Your task to perform on an android device: open app "Instagram" Image 0: 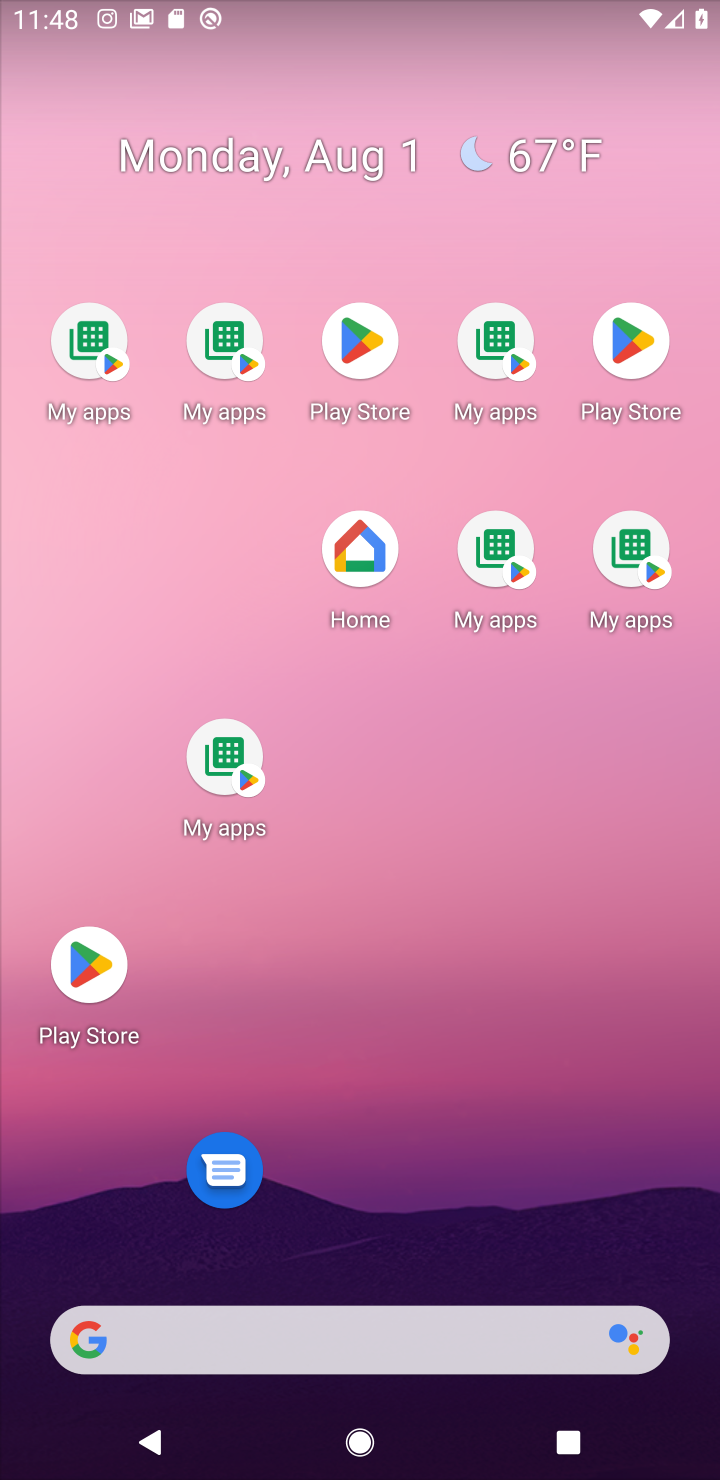
Step 0: drag from (448, 1036) to (329, 129)
Your task to perform on an android device: open app "Instagram" Image 1: 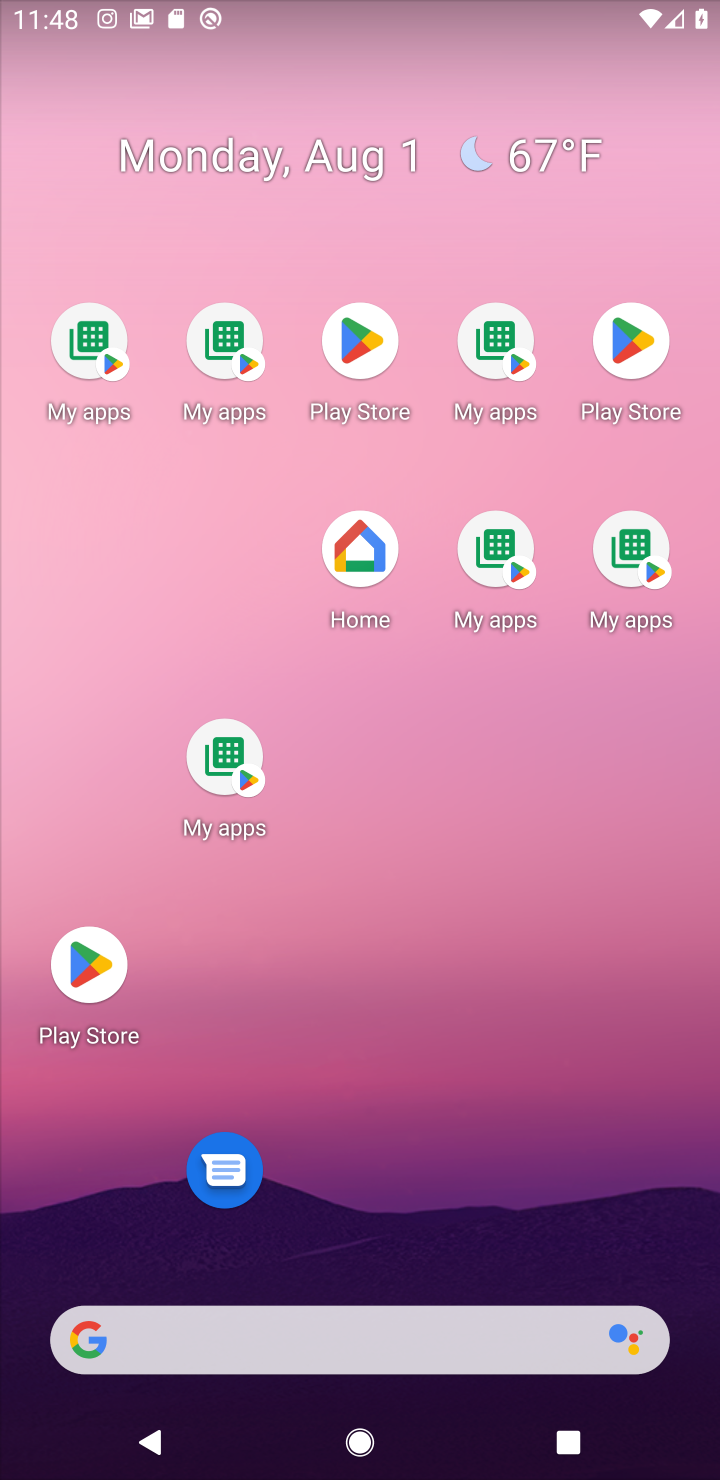
Step 1: drag from (388, 149) to (375, 67)
Your task to perform on an android device: open app "Instagram" Image 2: 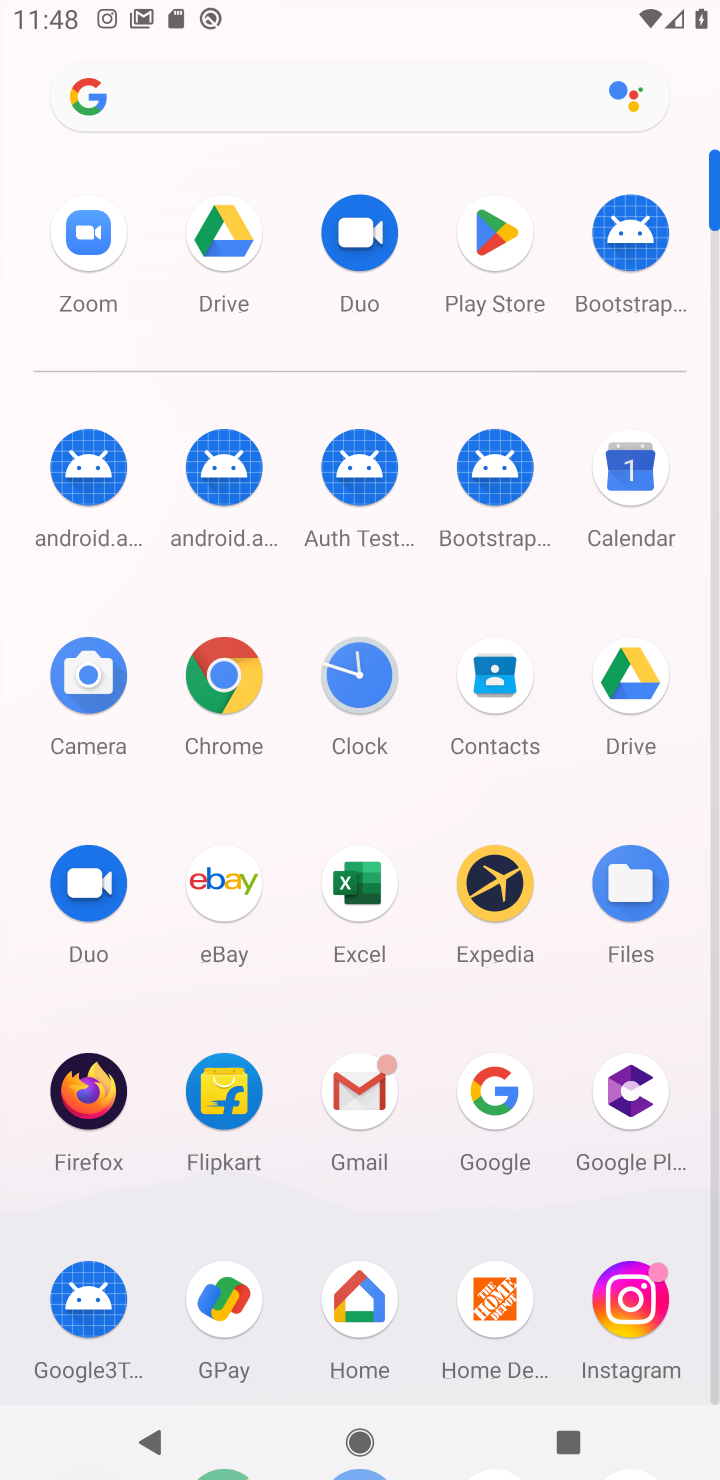
Step 2: click (501, 215)
Your task to perform on an android device: open app "Instagram" Image 3: 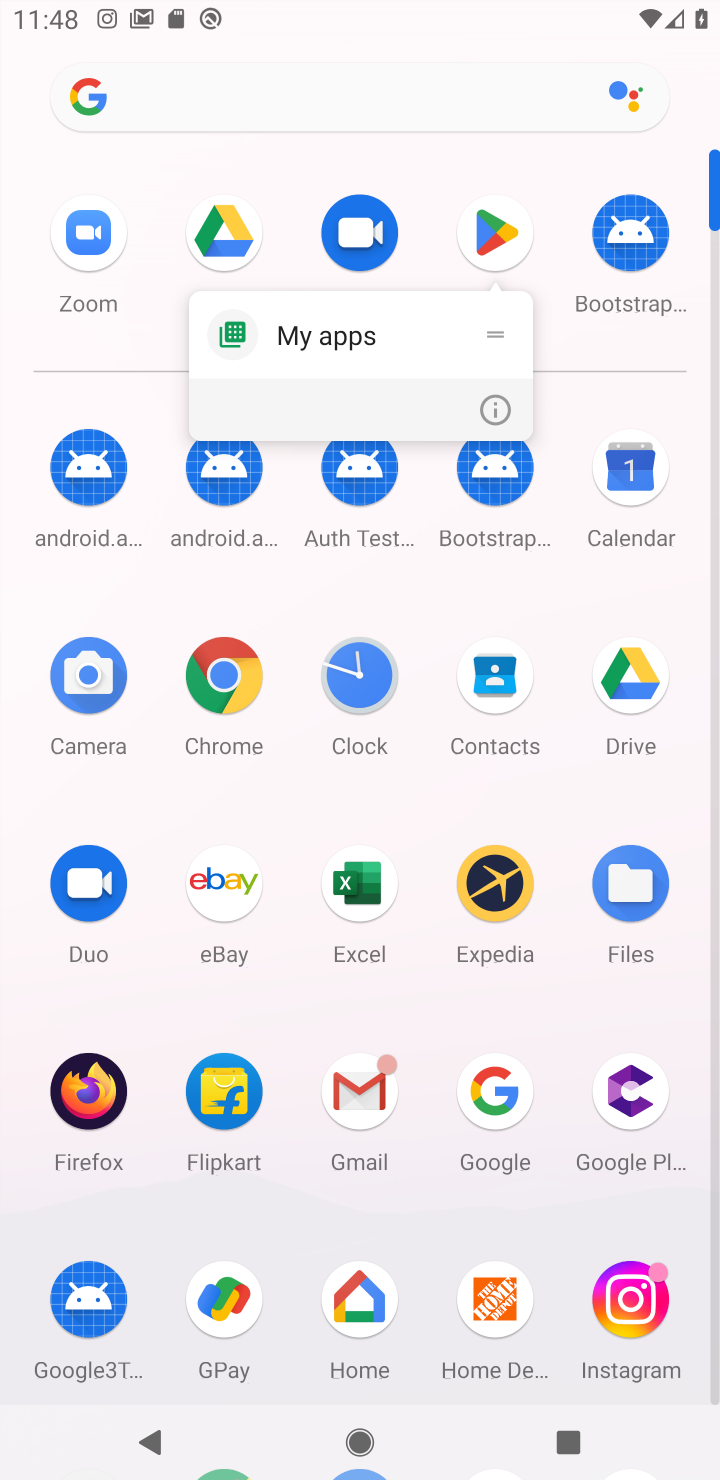
Step 3: click (524, 234)
Your task to perform on an android device: open app "Instagram" Image 4: 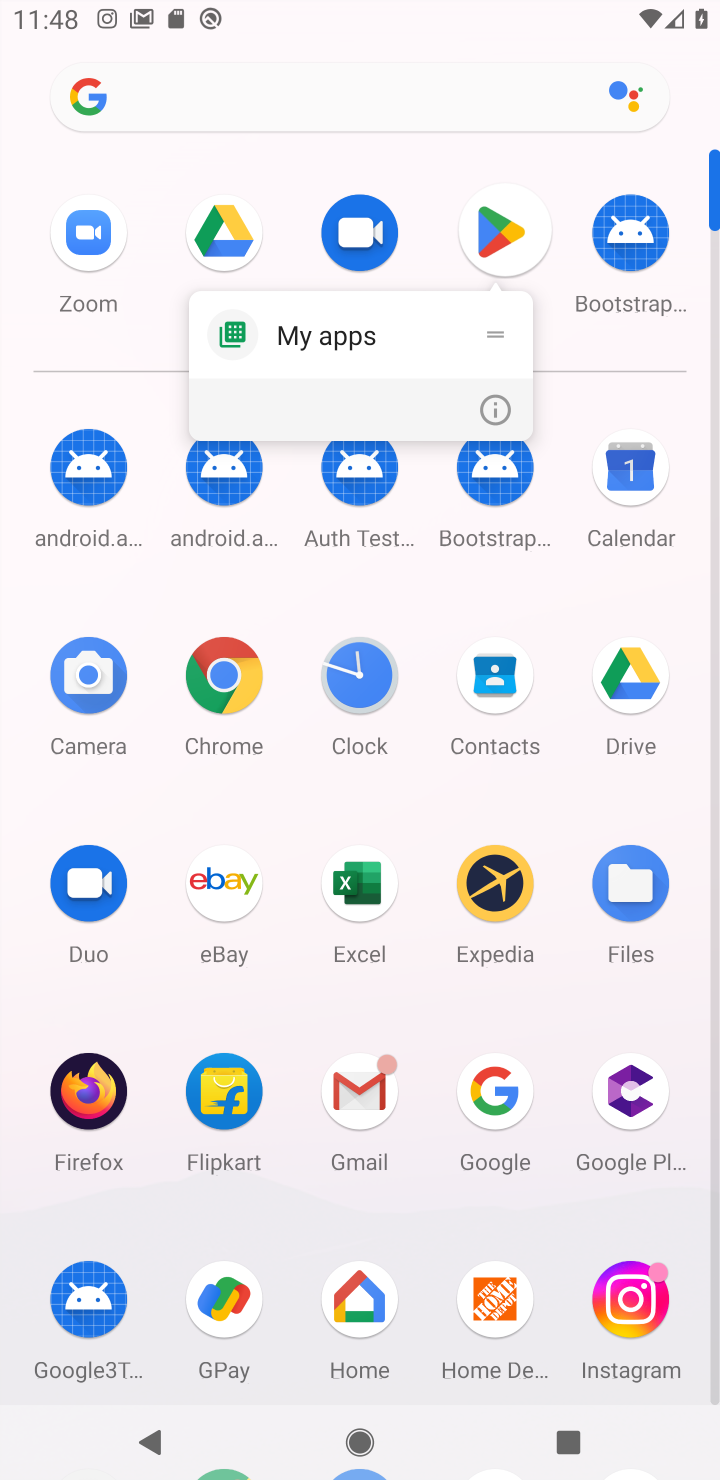
Step 4: click (518, 233)
Your task to perform on an android device: open app "Instagram" Image 5: 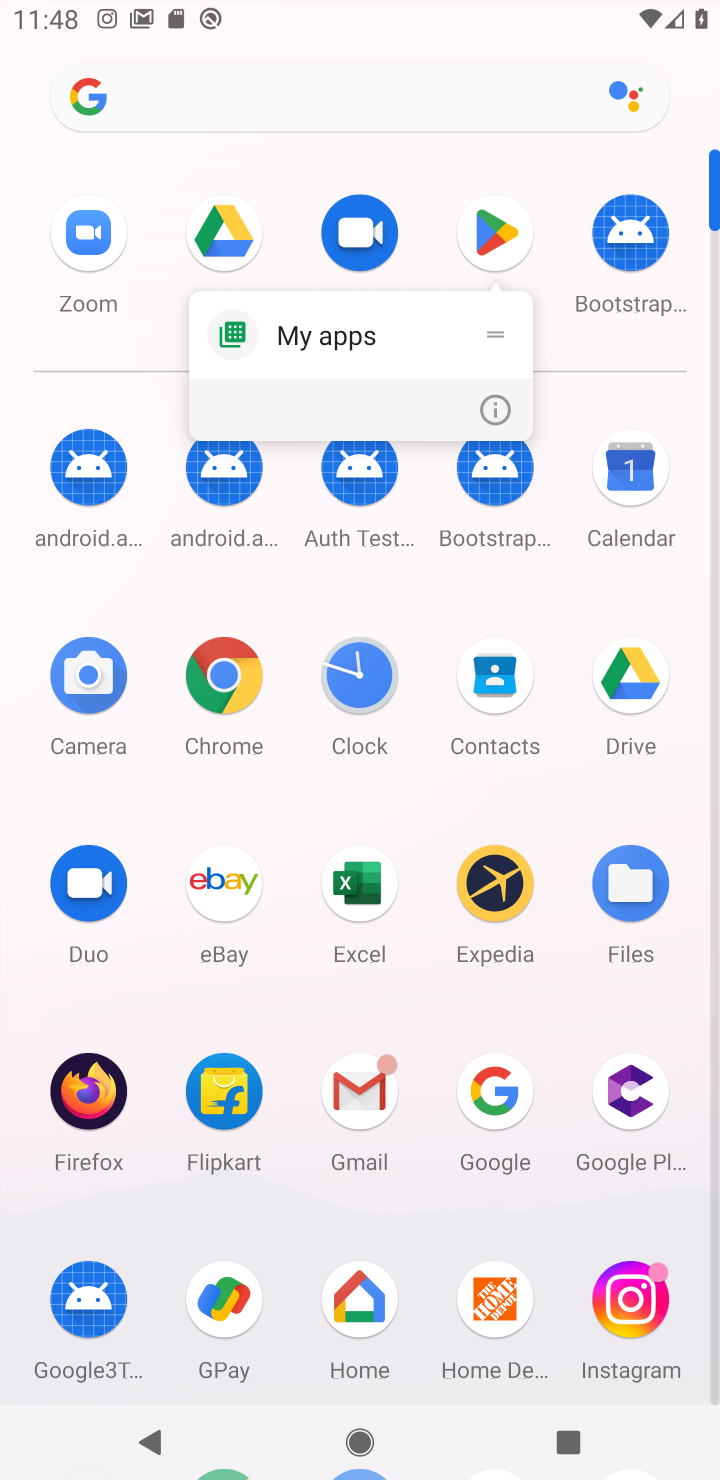
Step 5: click (527, 226)
Your task to perform on an android device: open app "Instagram" Image 6: 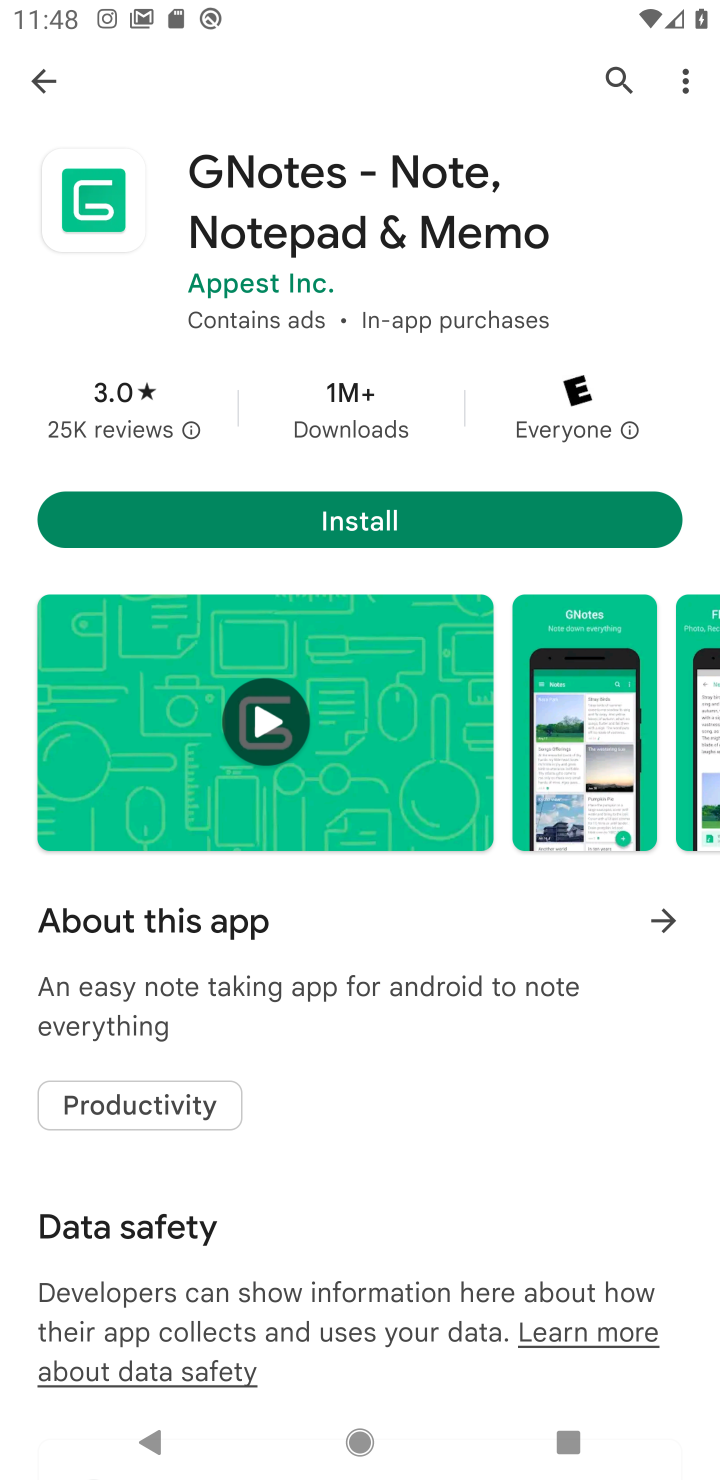
Step 6: click (56, 100)
Your task to perform on an android device: open app "Instagram" Image 7: 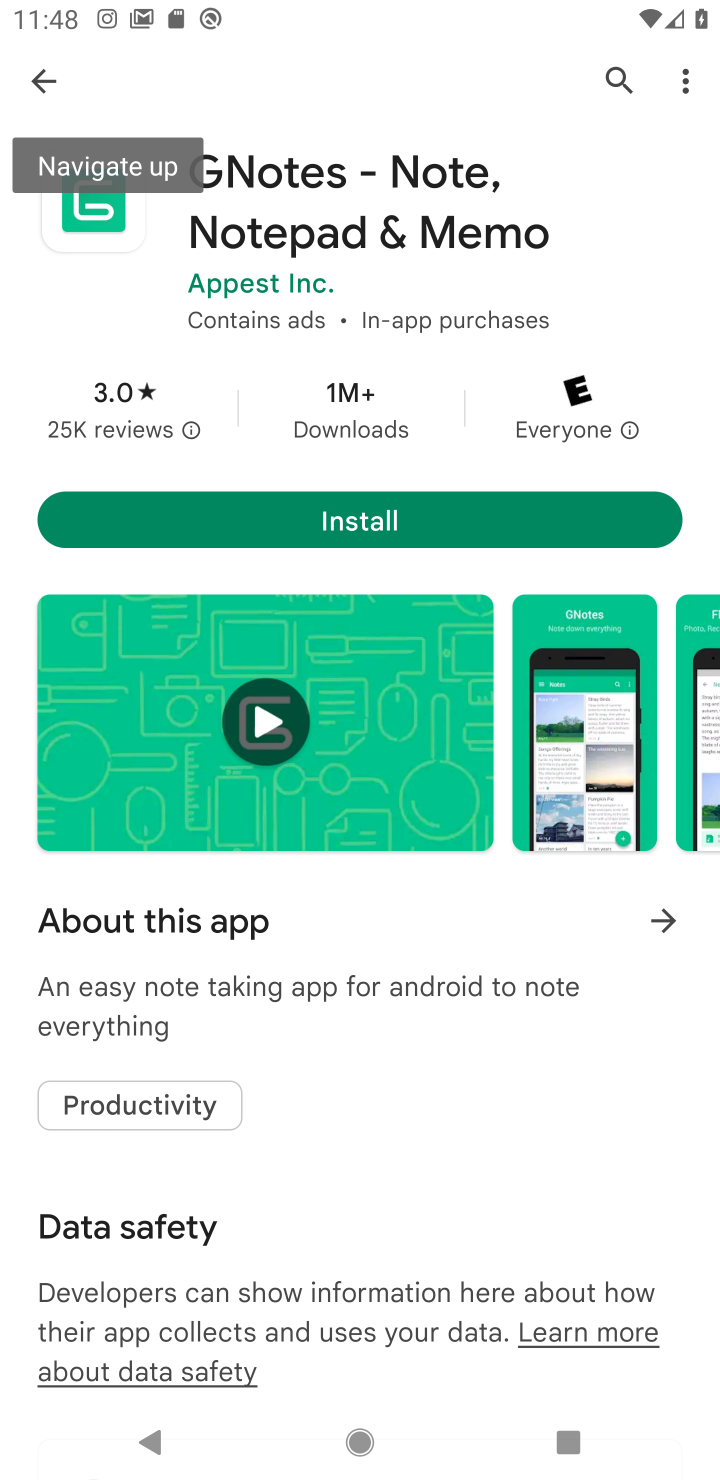
Step 7: click (38, 74)
Your task to perform on an android device: open app "Instagram" Image 8: 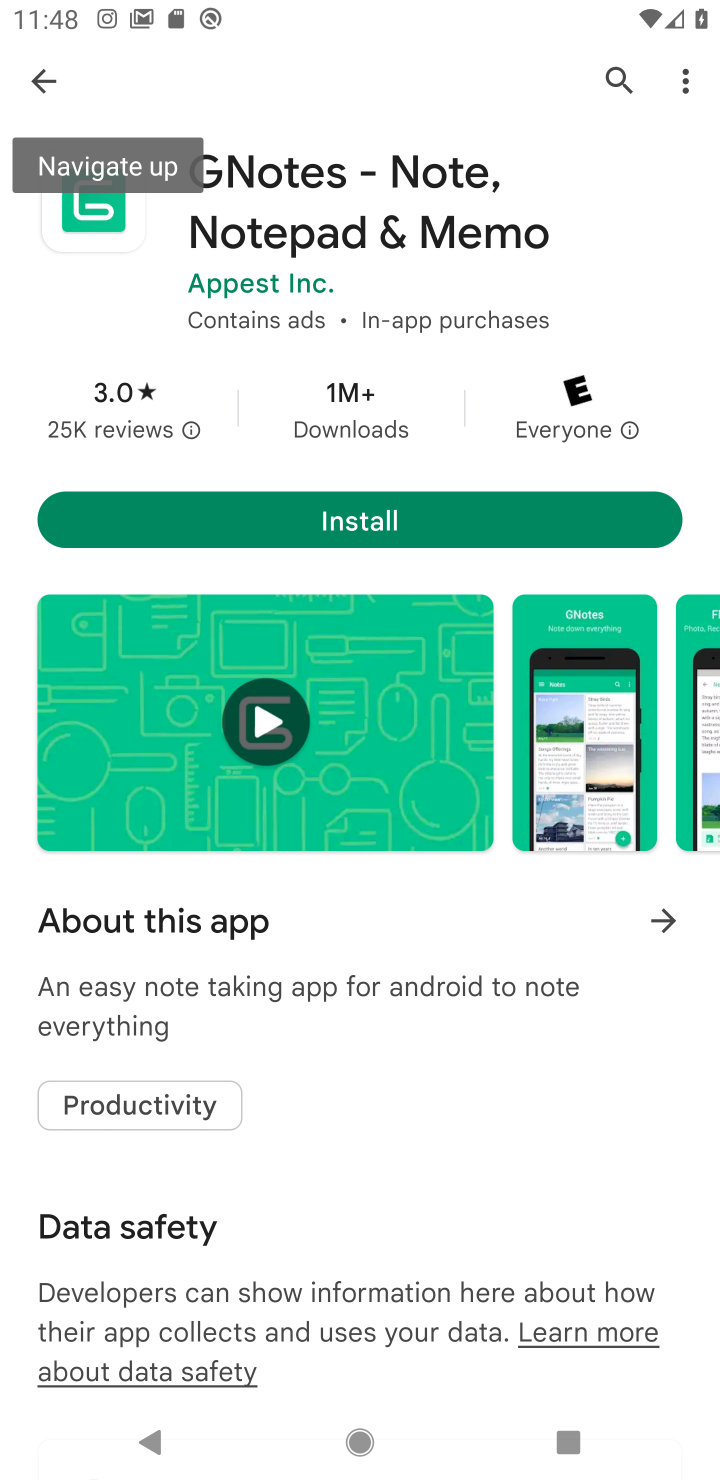
Step 8: click (42, 84)
Your task to perform on an android device: open app "Instagram" Image 9: 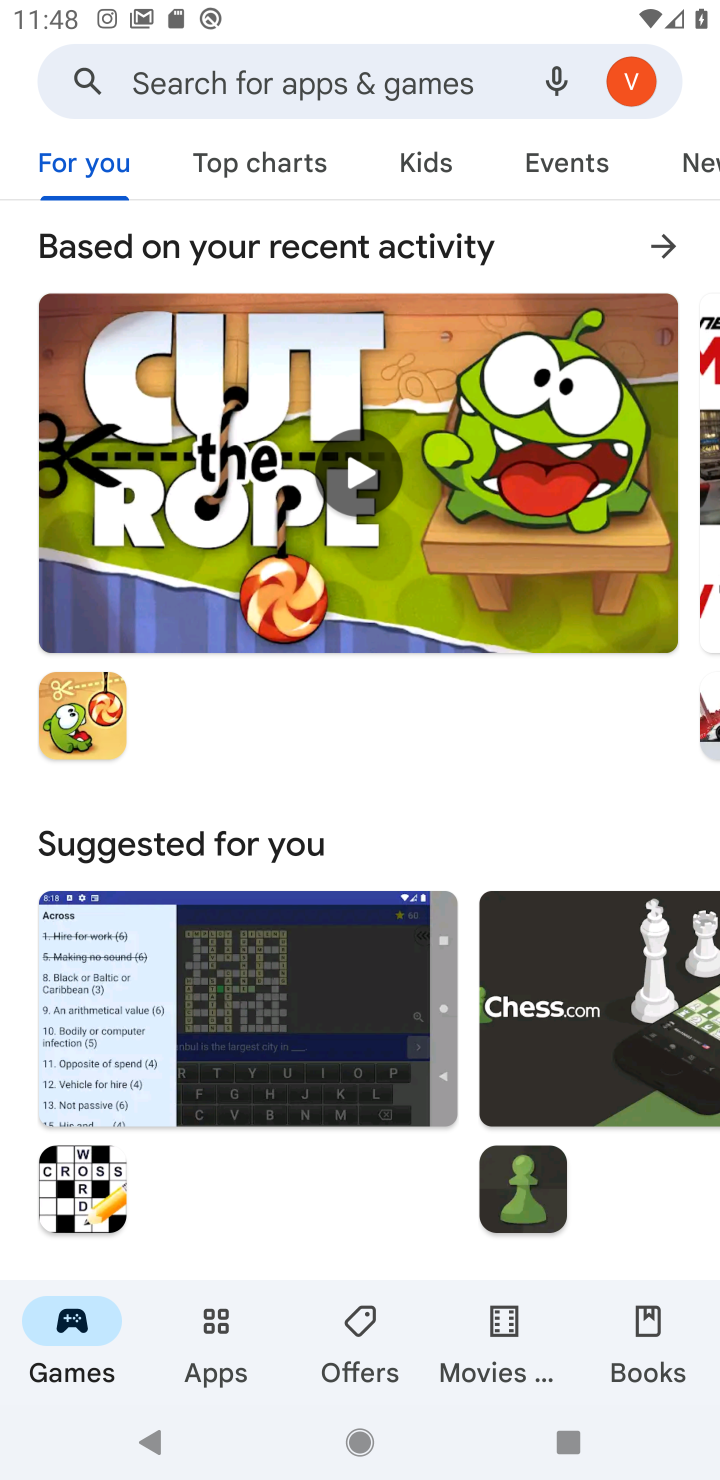
Step 9: click (220, 102)
Your task to perform on an android device: open app "Instagram" Image 10: 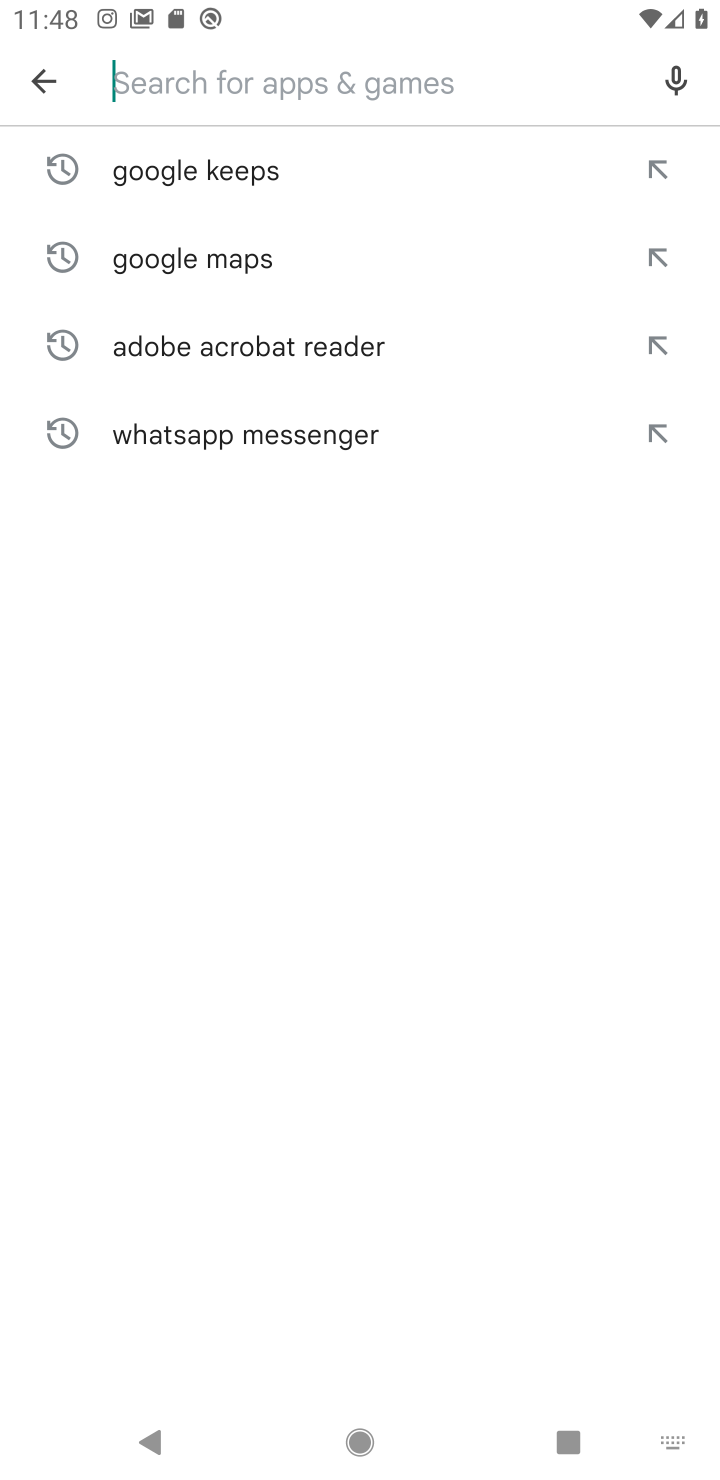
Step 10: click (196, 83)
Your task to perform on an android device: open app "Instagram" Image 11: 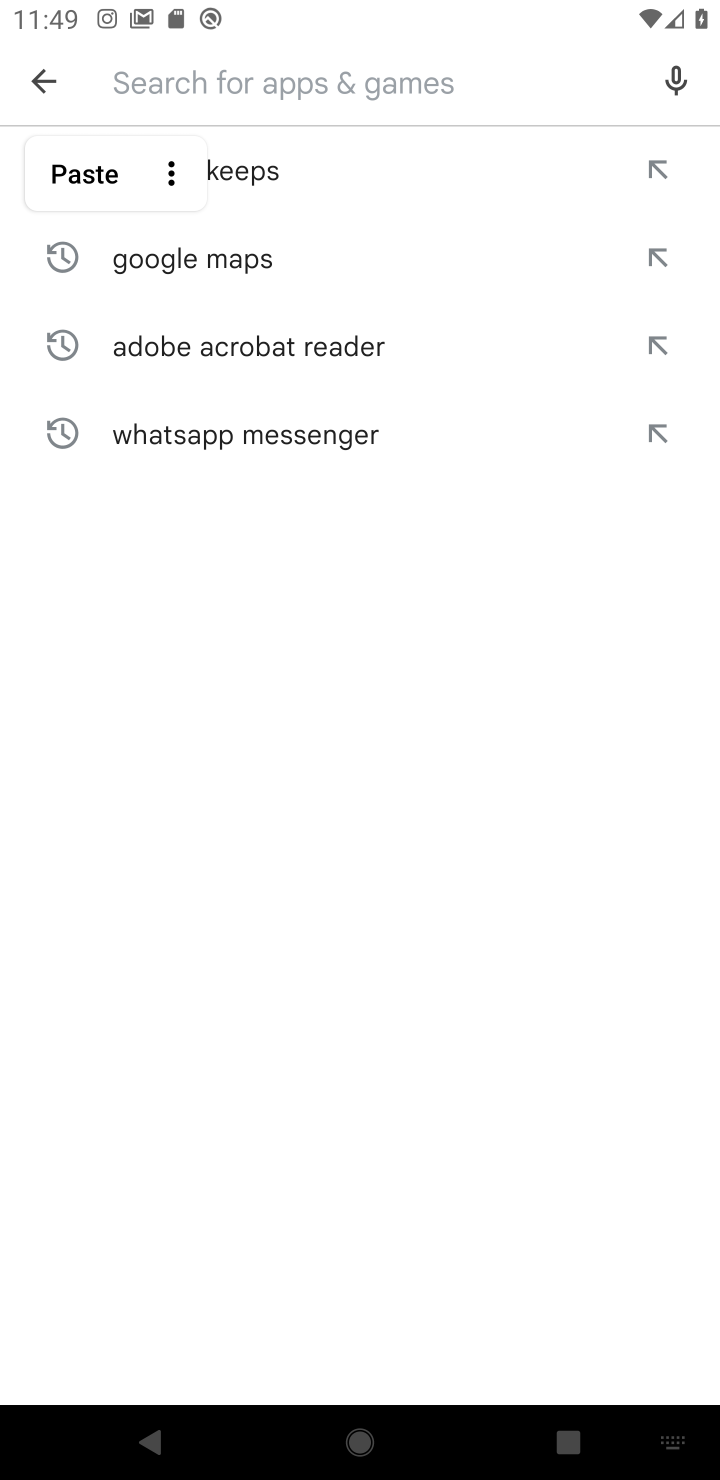
Step 11: type "instagram"
Your task to perform on an android device: open app "Instagram" Image 12: 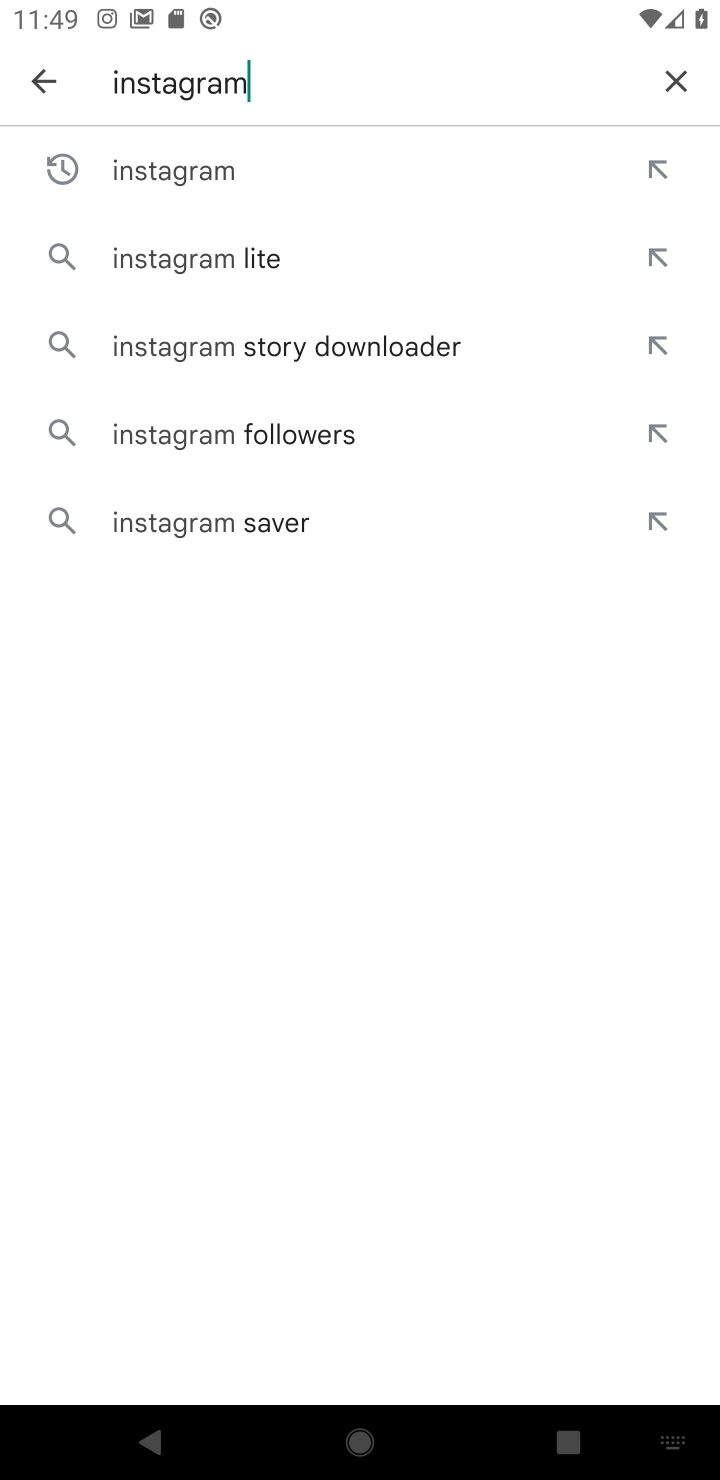
Step 12: click (190, 161)
Your task to perform on an android device: open app "Instagram" Image 13: 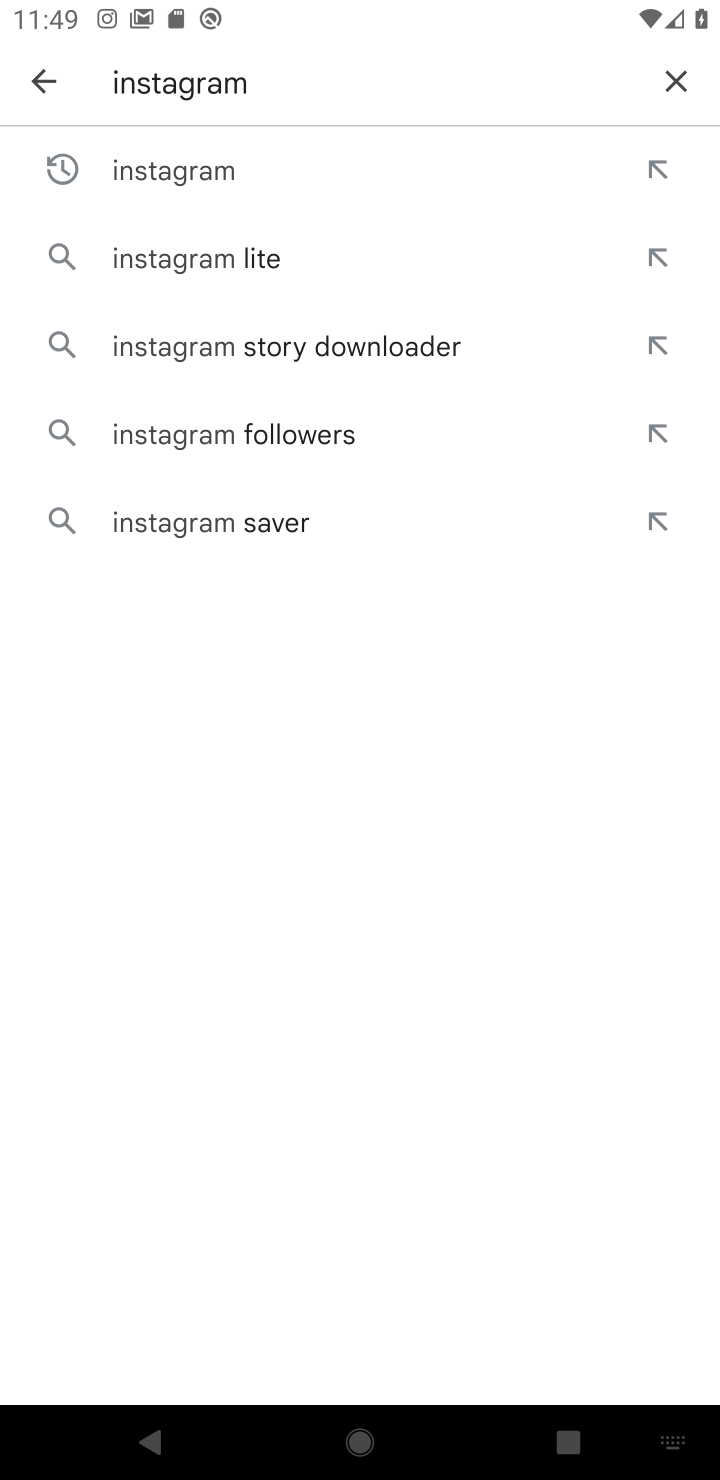
Step 13: click (190, 163)
Your task to perform on an android device: open app "Instagram" Image 14: 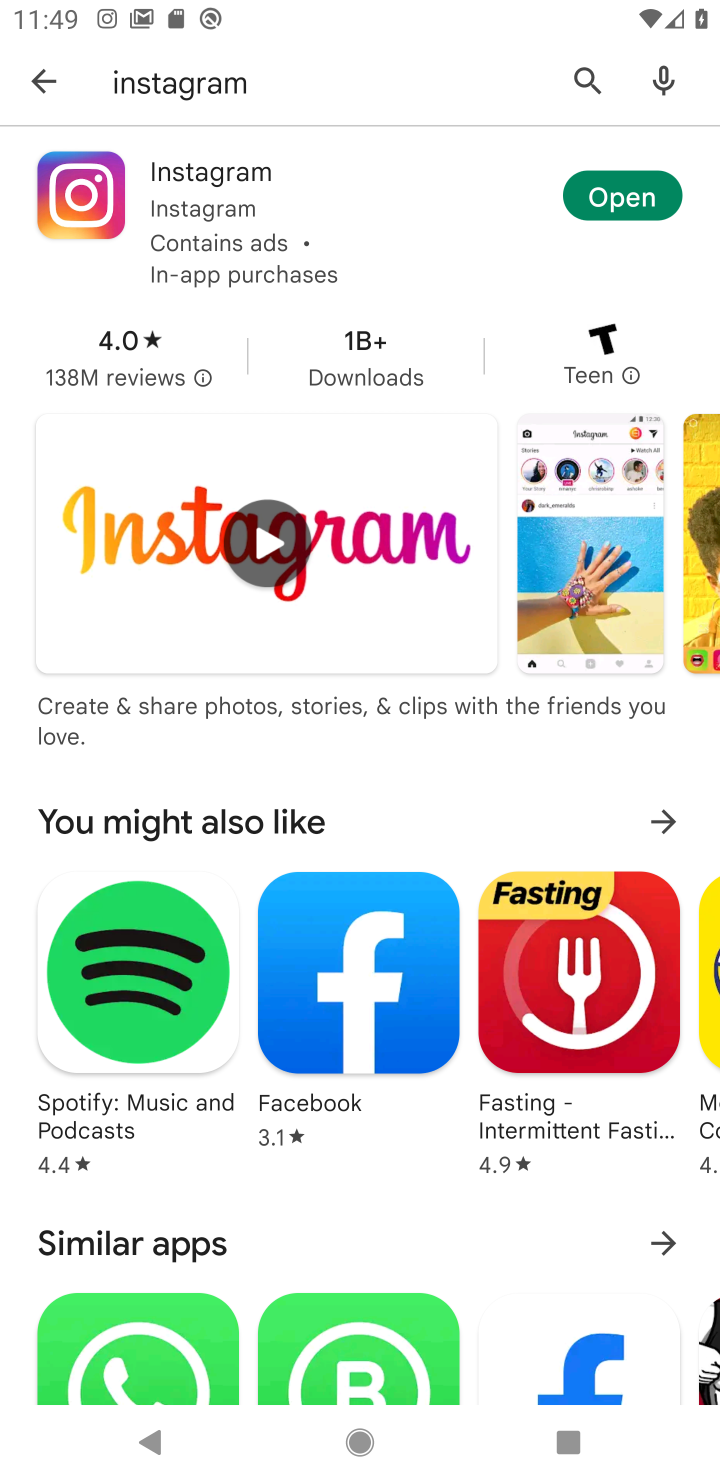
Step 14: click (642, 189)
Your task to perform on an android device: open app "Instagram" Image 15: 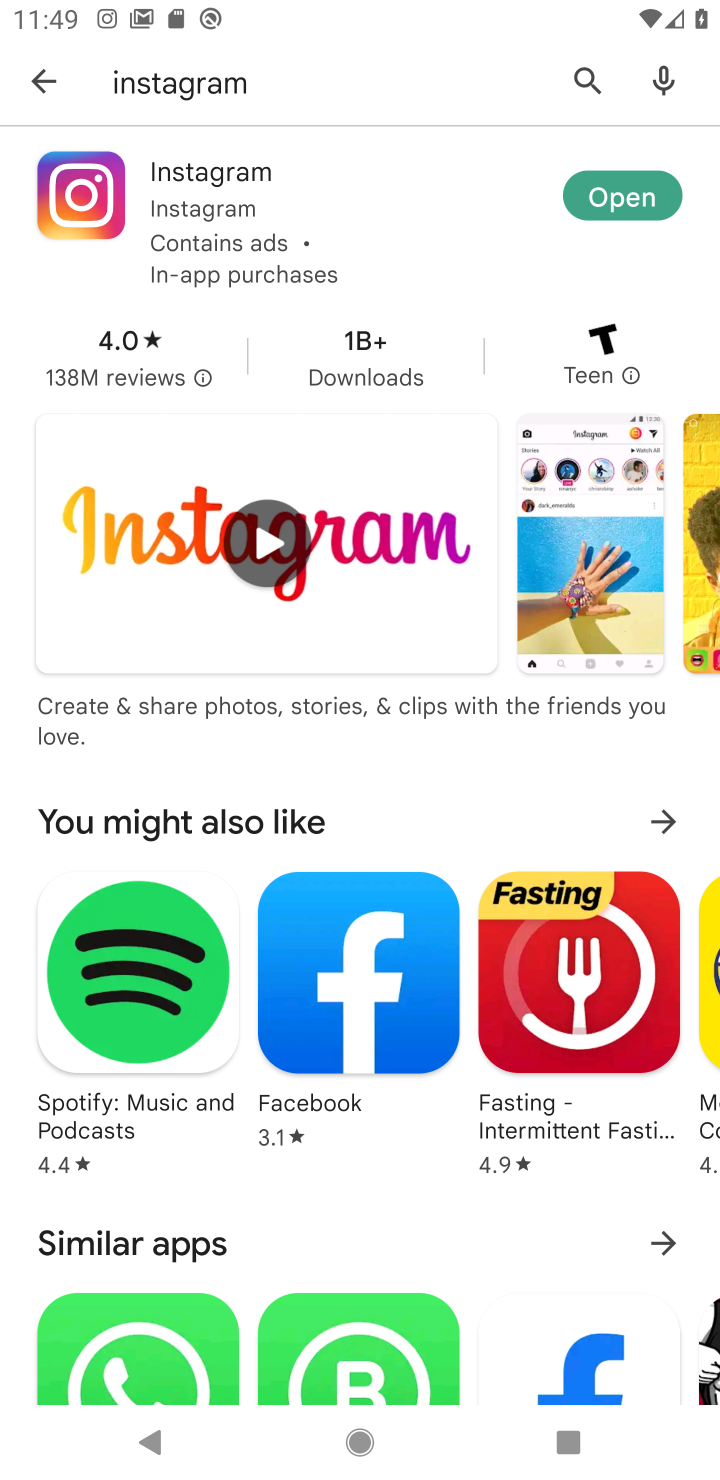
Step 15: click (651, 176)
Your task to perform on an android device: open app "Instagram" Image 16: 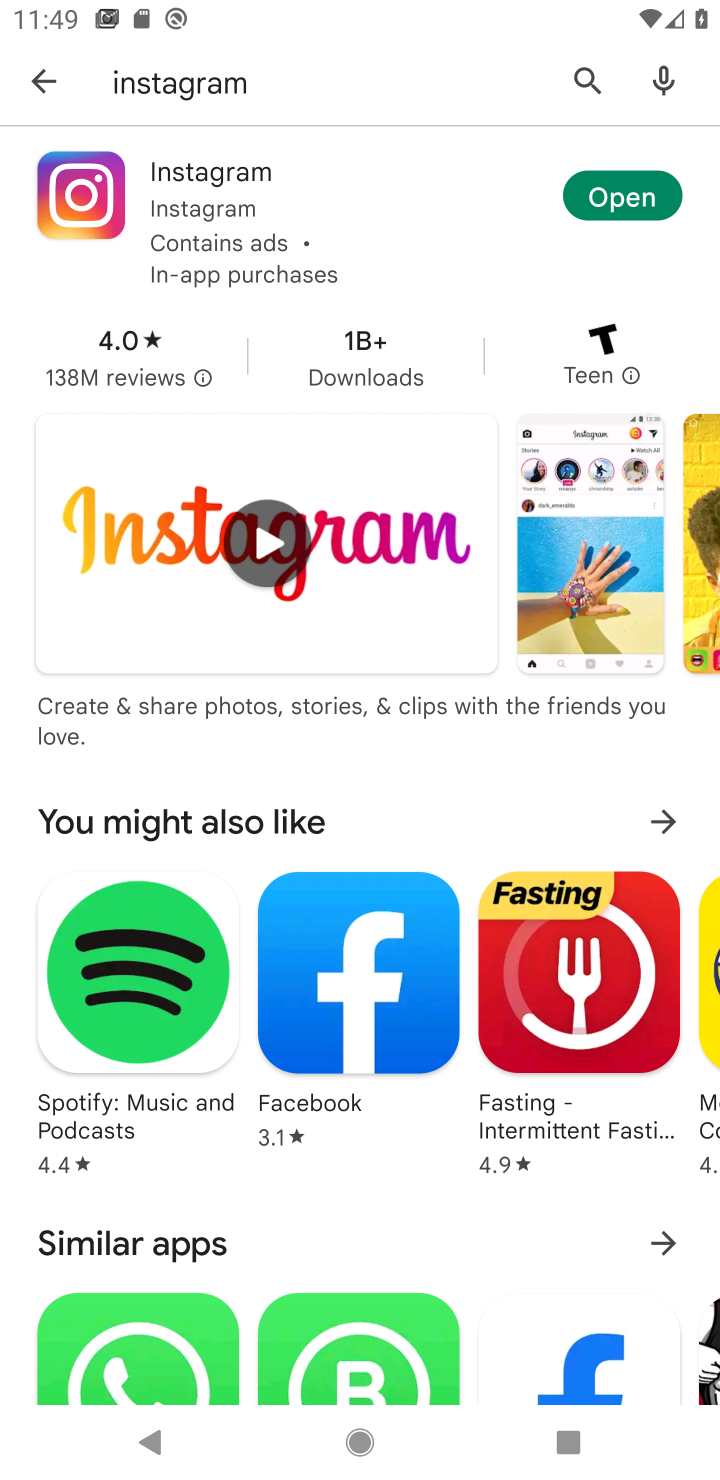
Step 16: click (649, 188)
Your task to perform on an android device: open app "Instagram" Image 17: 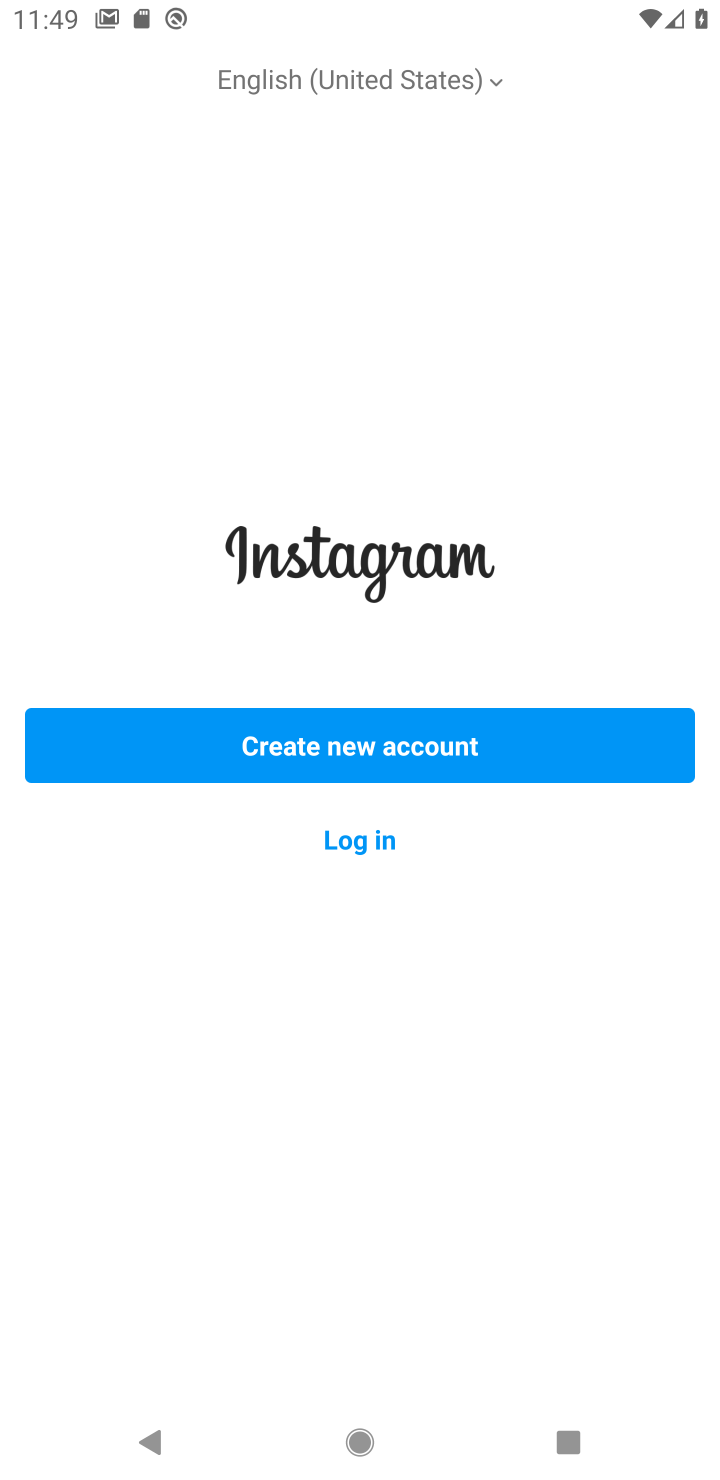
Step 17: click (649, 195)
Your task to perform on an android device: open app "Instagram" Image 18: 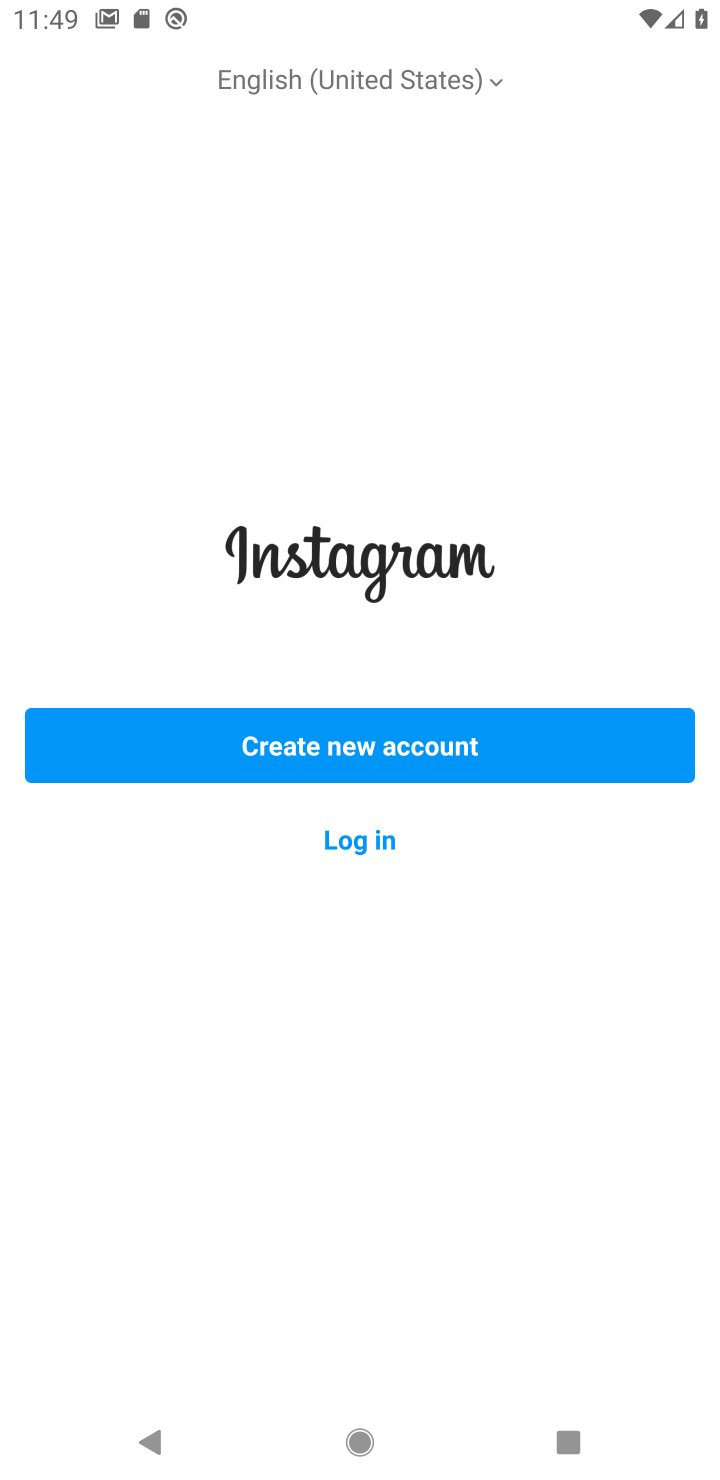
Step 18: task complete